Your task to perform on an android device: Do I have any events today? Image 0: 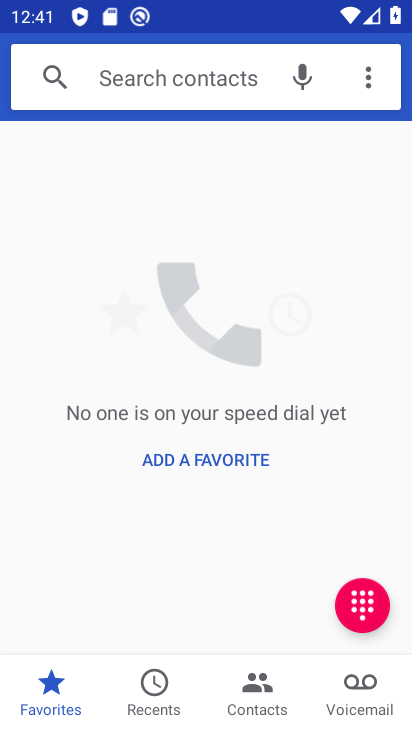
Step 0: press home button
Your task to perform on an android device: Do I have any events today? Image 1: 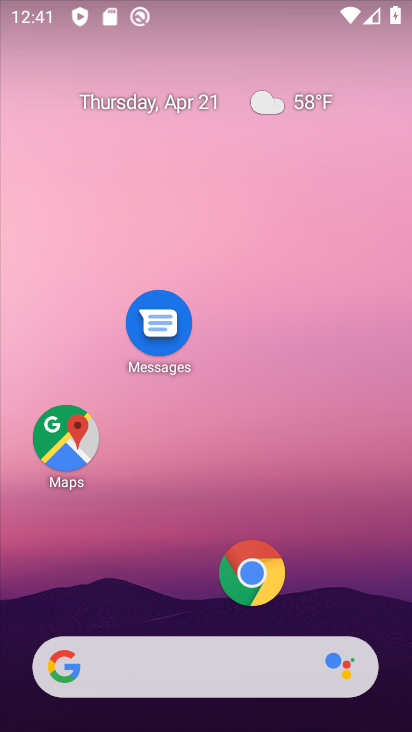
Step 1: drag from (177, 537) to (208, 113)
Your task to perform on an android device: Do I have any events today? Image 2: 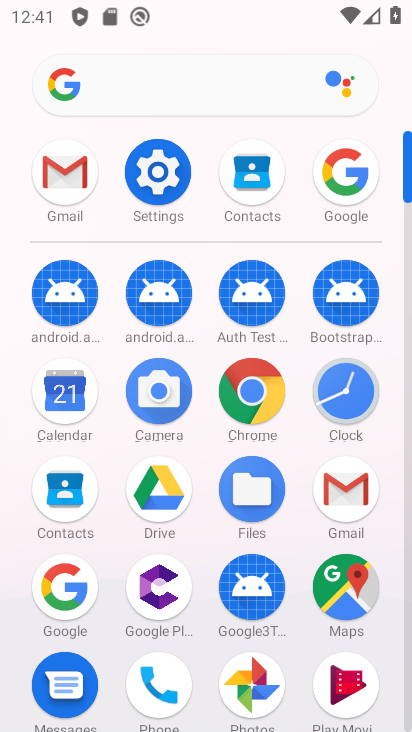
Step 2: click (54, 399)
Your task to perform on an android device: Do I have any events today? Image 3: 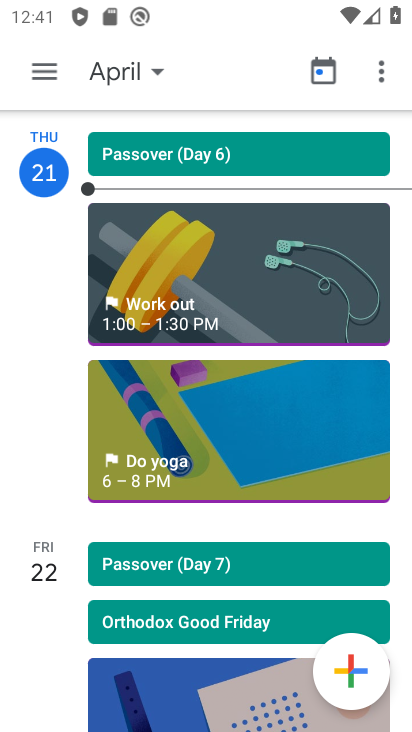
Step 3: click (153, 70)
Your task to perform on an android device: Do I have any events today? Image 4: 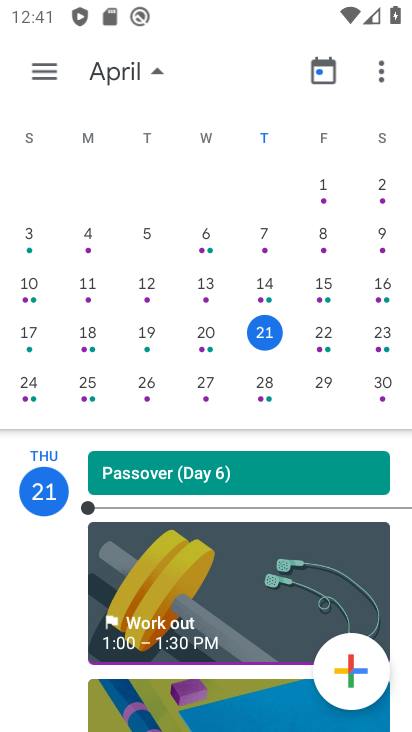
Step 4: click (261, 334)
Your task to perform on an android device: Do I have any events today? Image 5: 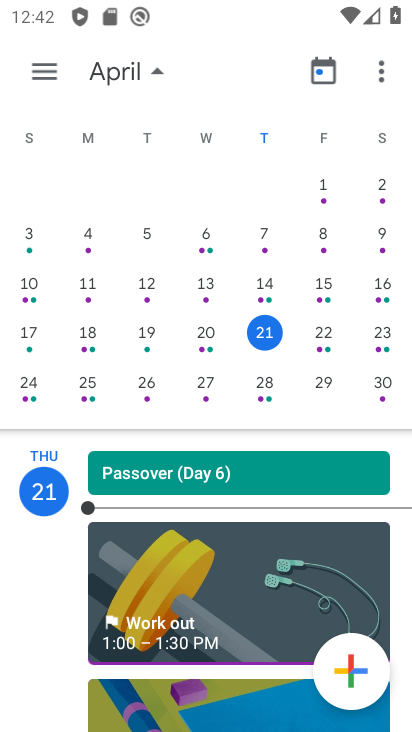
Step 5: task complete